Your task to perform on an android device: toggle javascript in the chrome app Image 0: 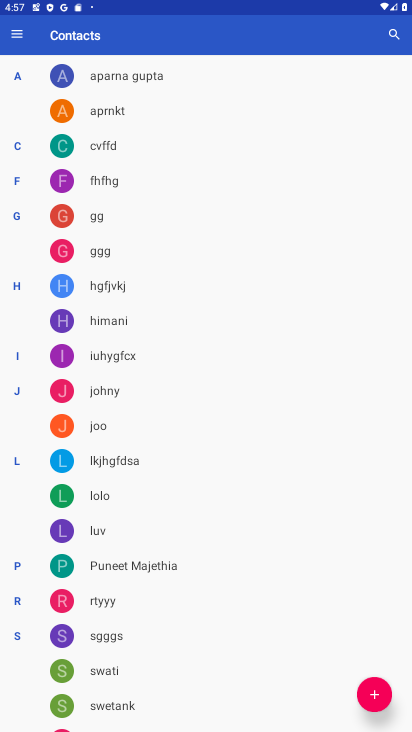
Step 0: press home button
Your task to perform on an android device: toggle javascript in the chrome app Image 1: 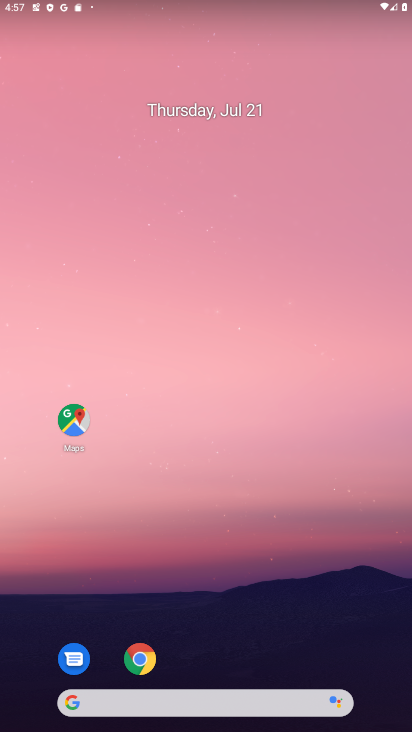
Step 1: click (143, 663)
Your task to perform on an android device: toggle javascript in the chrome app Image 2: 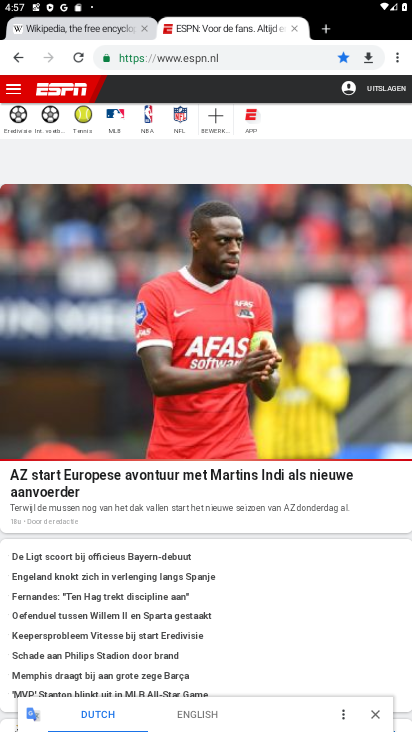
Step 2: click (399, 59)
Your task to perform on an android device: toggle javascript in the chrome app Image 3: 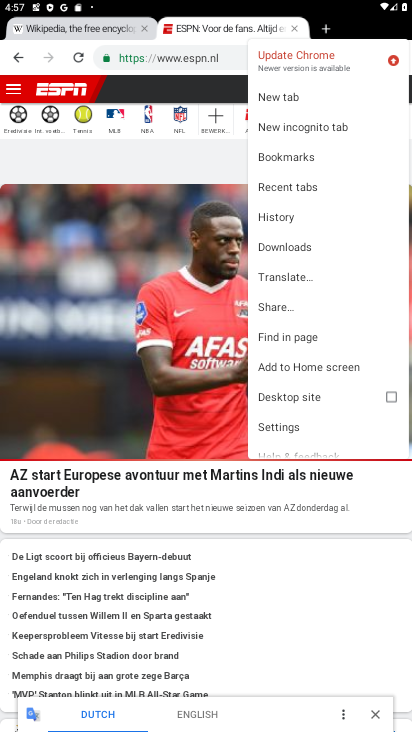
Step 3: click (289, 422)
Your task to perform on an android device: toggle javascript in the chrome app Image 4: 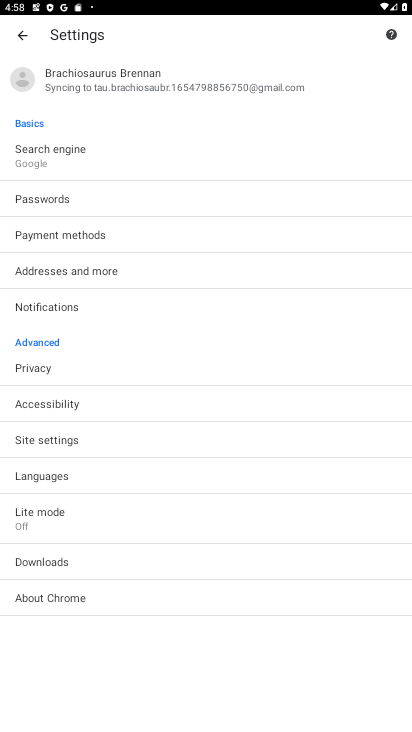
Step 4: click (50, 435)
Your task to perform on an android device: toggle javascript in the chrome app Image 5: 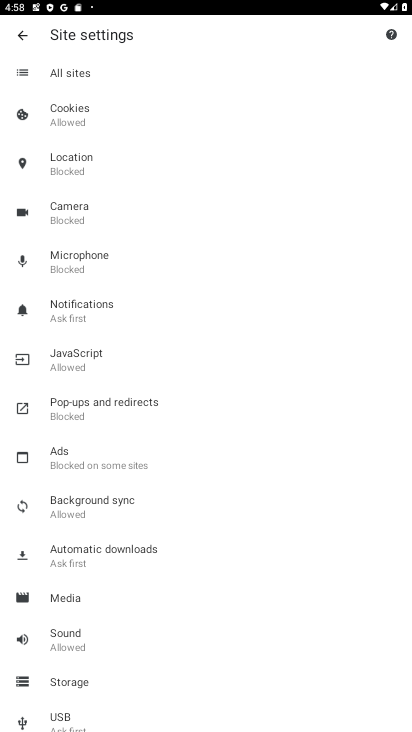
Step 5: click (86, 350)
Your task to perform on an android device: toggle javascript in the chrome app Image 6: 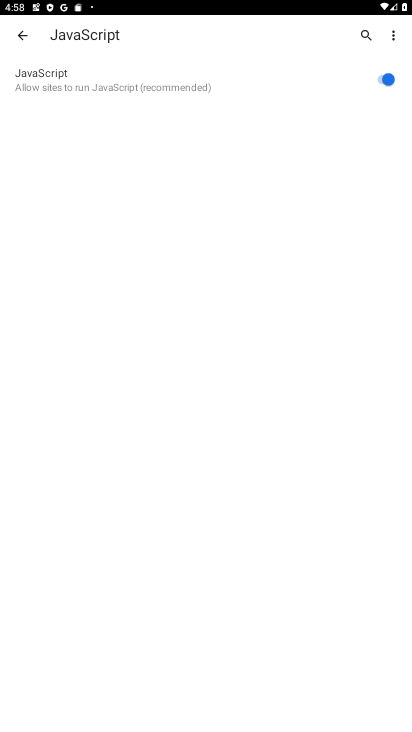
Step 6: click (392, 74)
Your task to perform on an android device: toggle javascript in the chrome app Image 7: 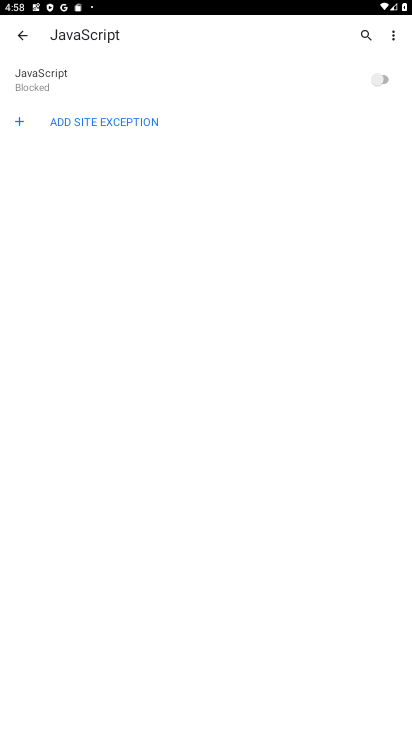
Step 7: task complete